Your task to perform on an android device: Go to location settings Image 0: 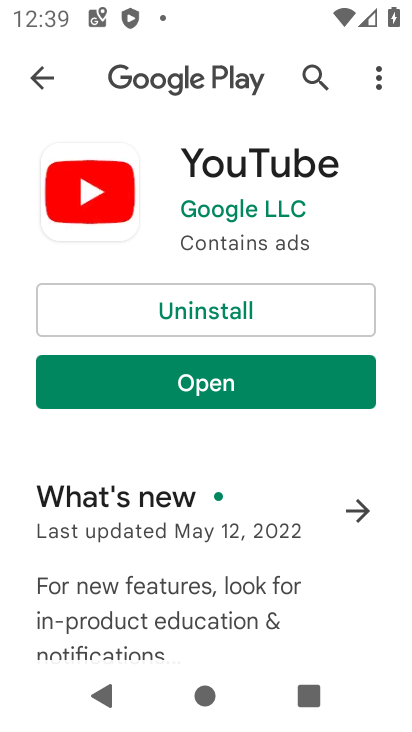
Step 0: press home button
Your task to perform on an android device: Go to location settings Image 1: 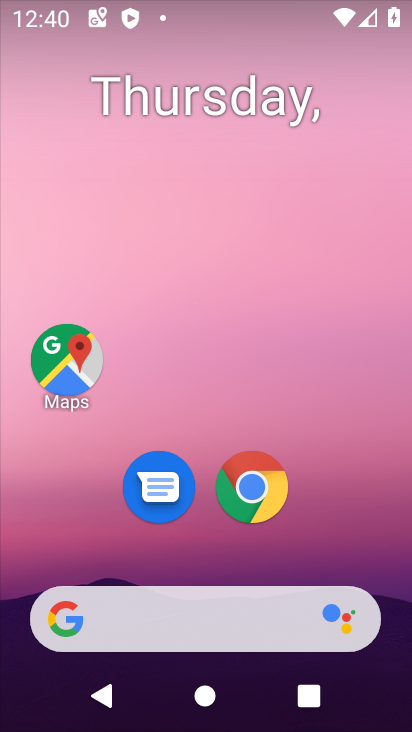
Step 1: drag from (342, 530) to (354, 14)
Your task to perform on an android device: Go to location settings Image 2: 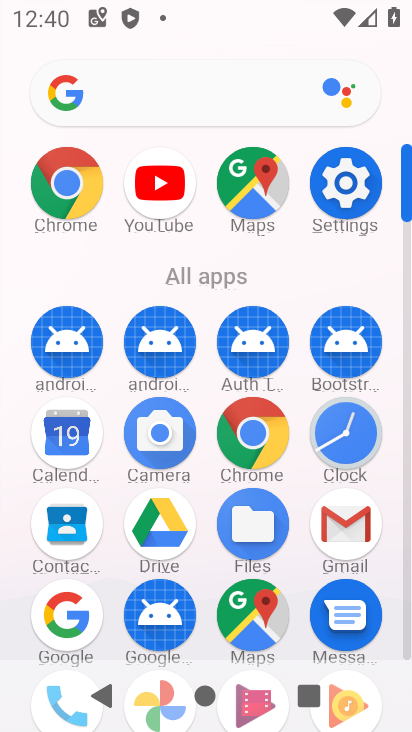
Step 2: click (352, 178)
Your task to perform on an android device: Go to location settings Image 3: 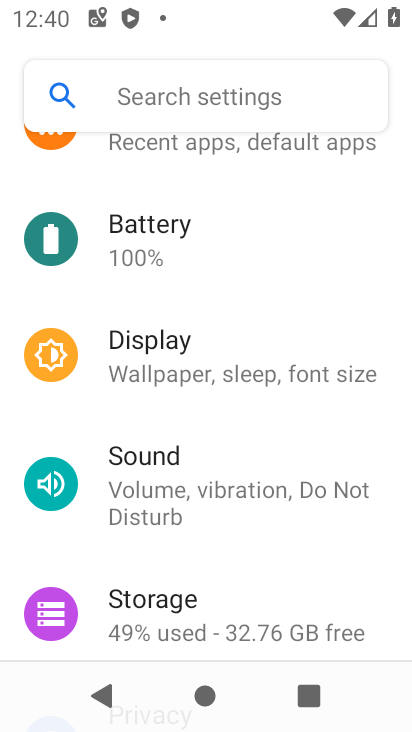
Step 3: drag from (199, 607) to (253, 294)
Your task to perform on an android device: Go to location settings Image 4: 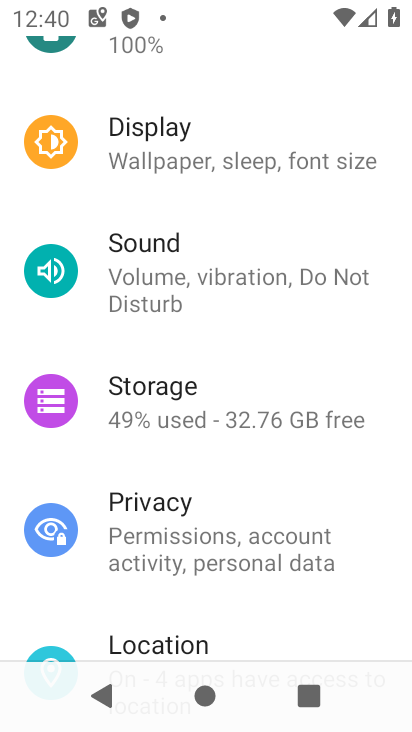
Step 4: click (241, 638)
Your task to perform on an android device: Go to location settings Image 5: 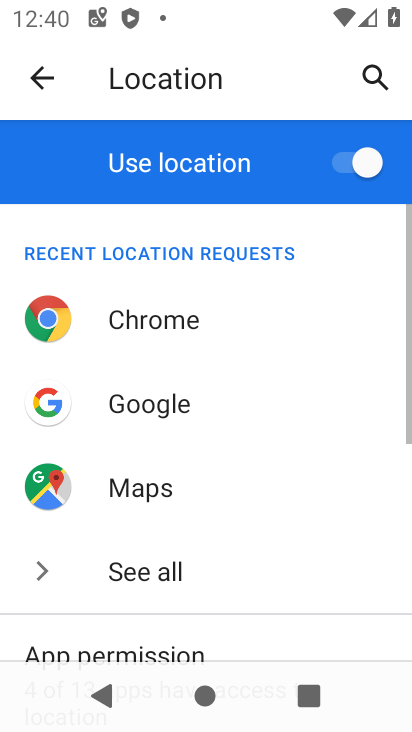
Step 5: task complete